Your task to perform on an android device: turn on translation in the chrome app Image 0: 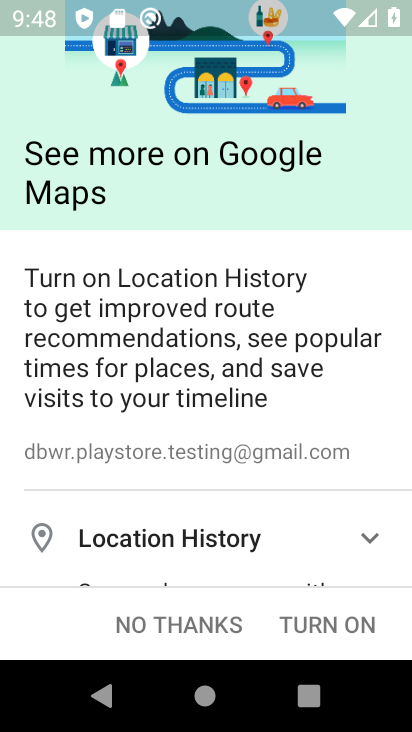
Step 0: click (181, 631)
Your task to perform on an android device: turn on translation in the chrome app Image 1: 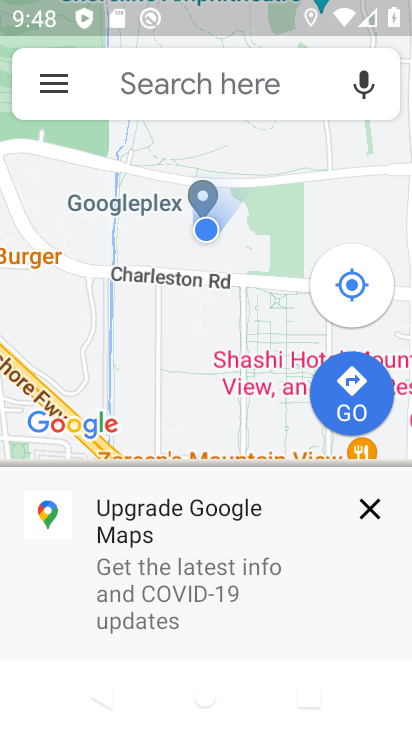
Step 1: press home button
Your task to perform on an android device: turn on translation in the chrome app Image 2: 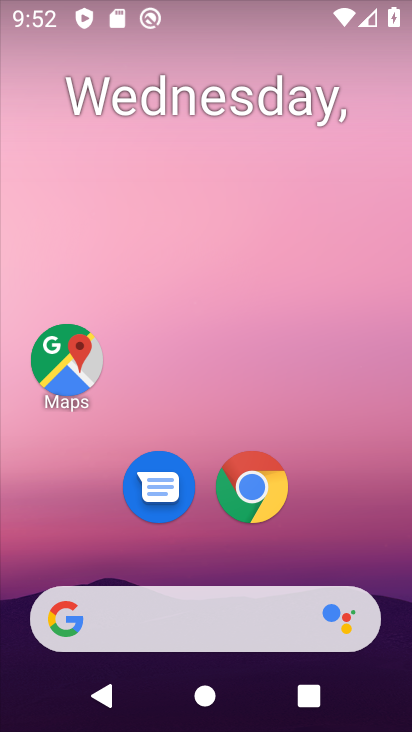
Step 2: click (271, 476)
Your task to perform on an android device: turn on translation in the chrome app Image 3: 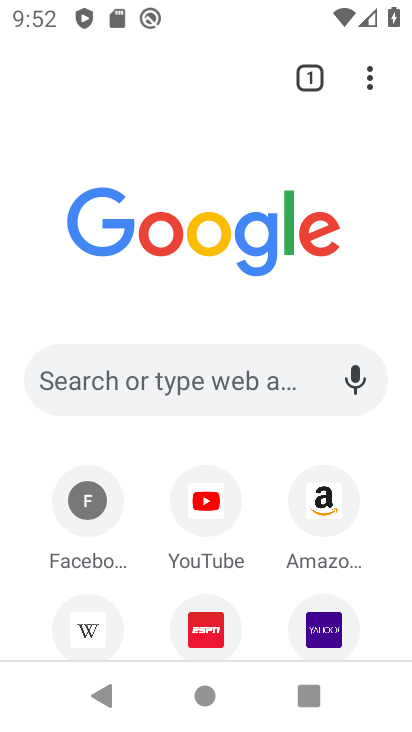
Step 3: click (367, 85)
Your task to perform on an android device: turn on translation in the chrome app Image 4: 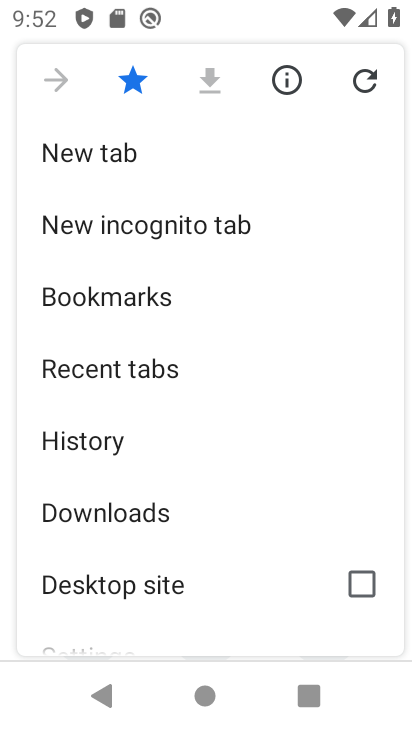
Step 4: drag from (135, 602) to (164, 121)
Your task to perform on an android device: turn on translation in the chrome app Image 5: 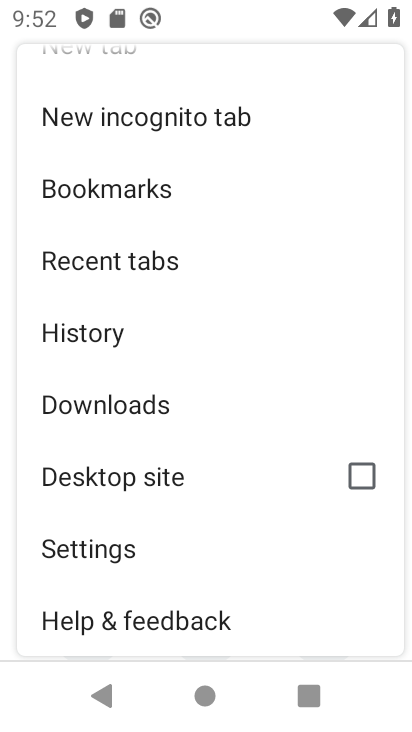
Step 5: click (119, 555)
Your task to perform on an android device: turn on translation in the chrome app Image 6: 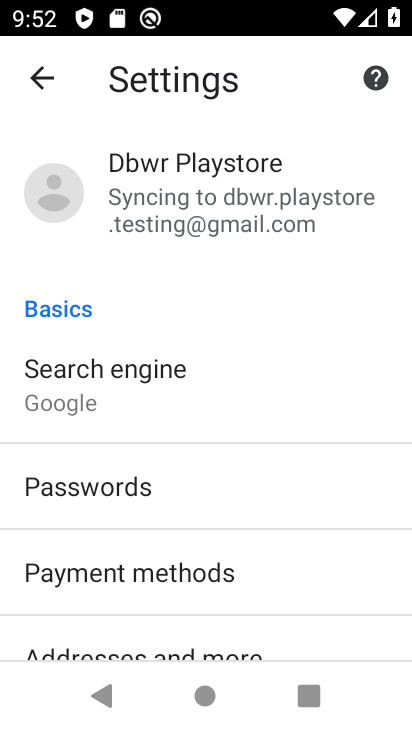
Step 6: drag from (184, 505) to (175, 215)
Your task to perform on an android device: turn on translation in the chrome app Image 7: 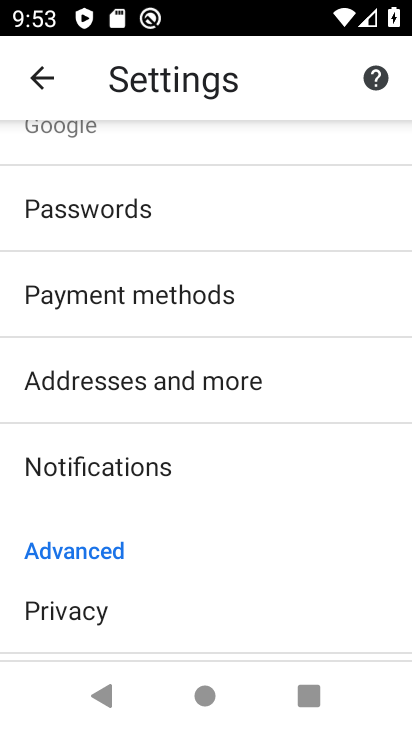
Step 7: drag from (242, 606) to (233, 55)
Your task to perform on an android device: turn on translation in the chrome app Image 8: 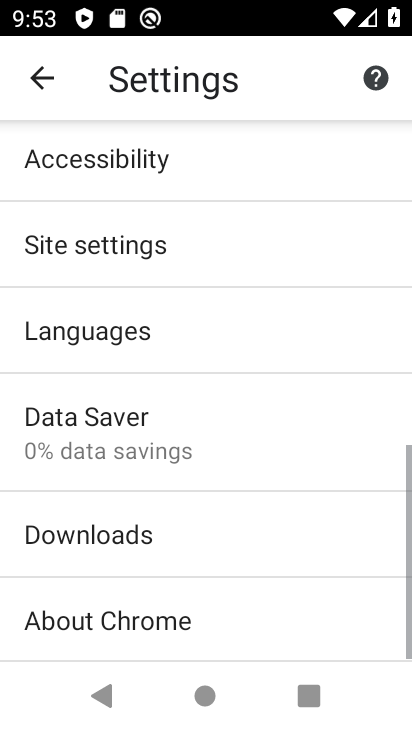
Step 8: click (221, 327)
Your task to perform on an android device: turn on translation in the chrome app Image 9: 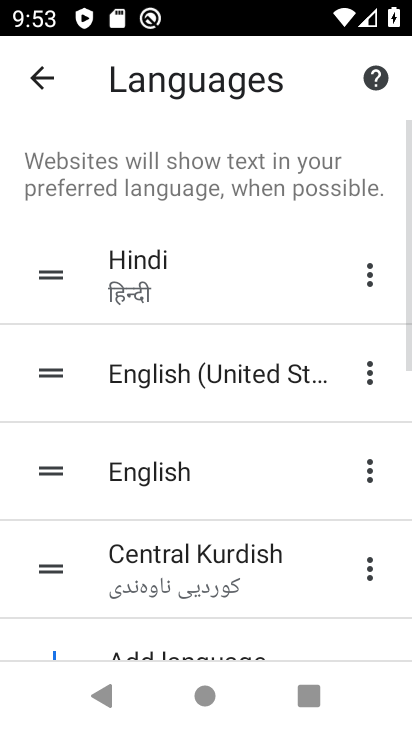
Step 9: drag from (280, 591) to (195, 127)
Your task to perform on an android device: turn on translation in the chrome app Image 10: 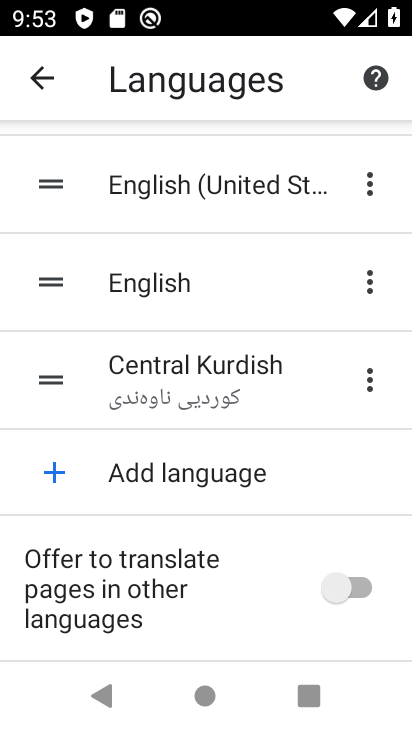
Step 10: click (351, 590)
Your task to perform on an android device: turn on translation in the chrome app Image 11: 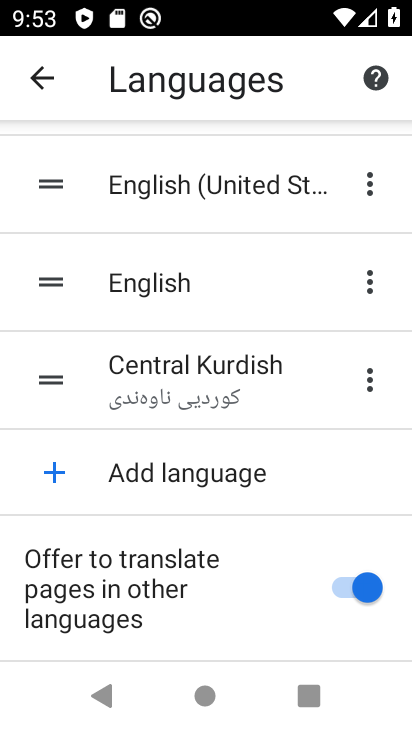
Step 11: task complete